Your task to perform on an android device: change the clock display to digital Image 0: 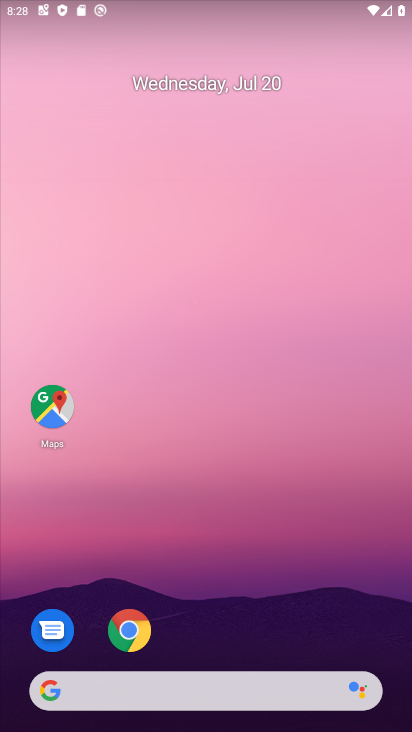
Step 0: drag from (397, 701) to (322, 134)
Your task to perform on an android device: change the clock display to digital Image 1: 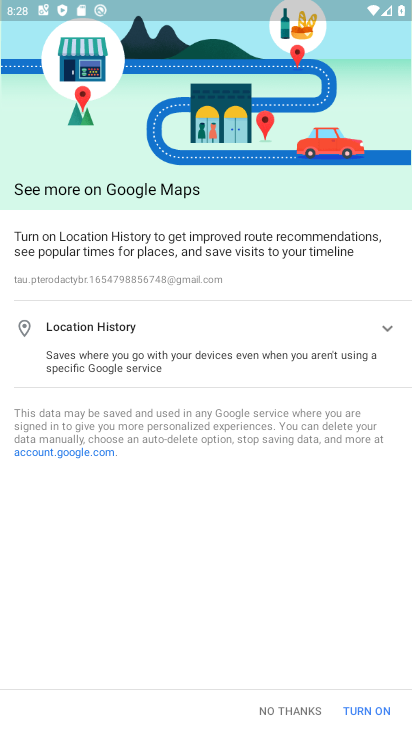
Step 1: press home button
Your task to perform on an android device: change the clock display to digital Image 2: 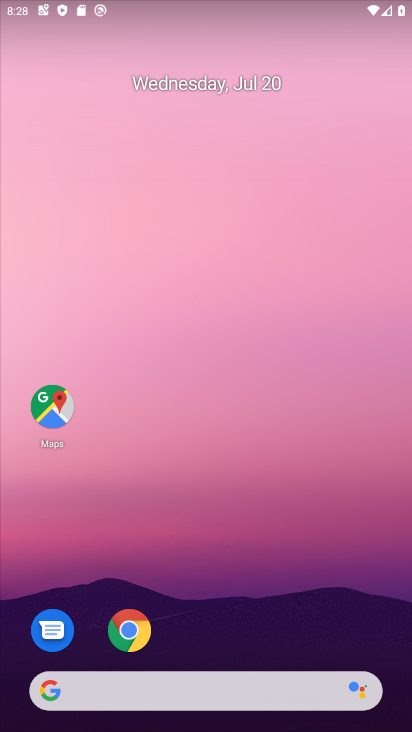
Step 2: drag from (391, 681) to (312, 97)
Your task to perform on an android device: change the clock display to digital Image 3: 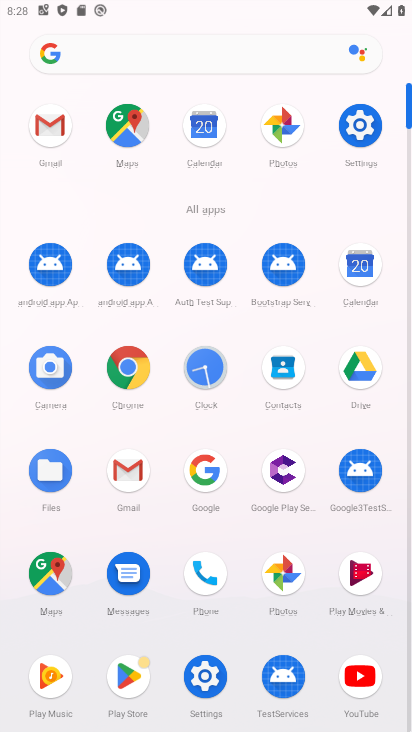
Step 3: click (214, 363)
Your task to perform on an android device: change the clock display to digital Image 4: 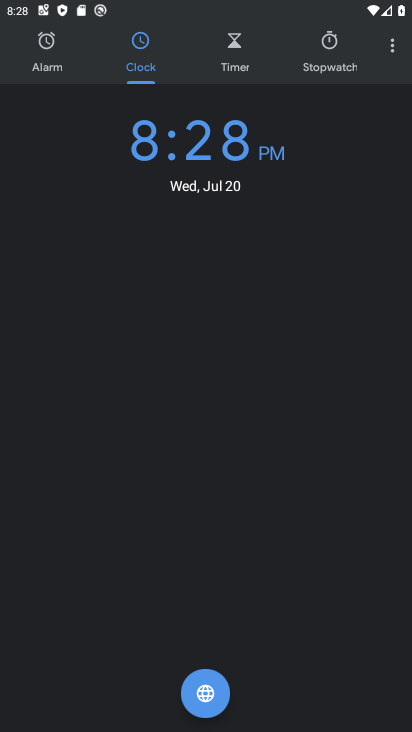
Step 4: click (396, 43)
Your task to perform on an android device: change the clock display to digital Image 5: 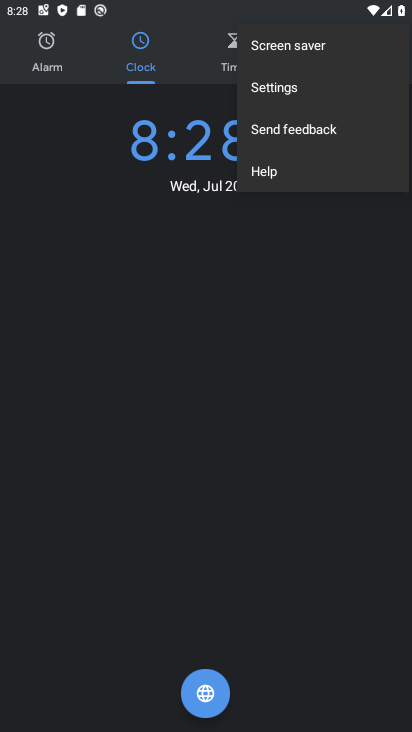
Step 5: click (271, 89)
Your task to perform on an android device: change the clock display to digital Image 6: 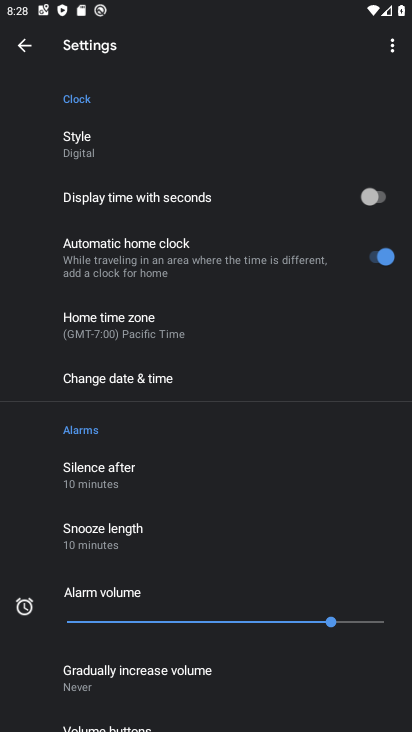
Step 6: click (93, 134)
Your task to perform on an android device: change the clock display to digital Image 7: 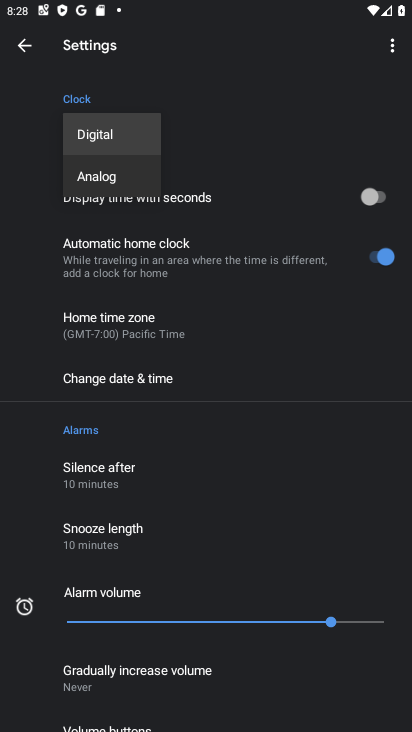
Step 7: click (84, 170)
Your task to perform on an android device: change the clock display to digital Image 8: 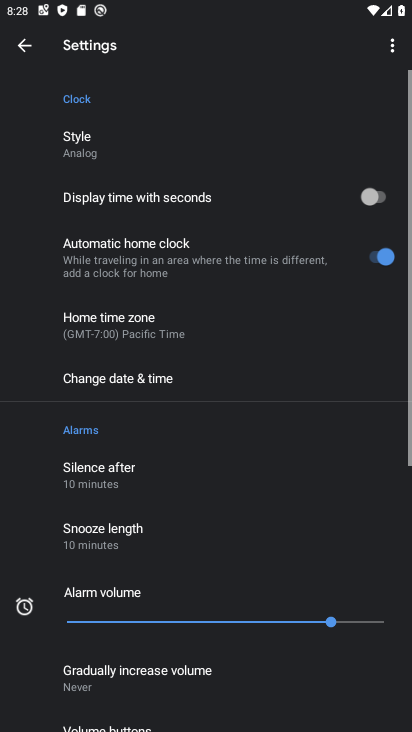
Step 8: task complete